Your task to perform on an android device: Check the weather Image 0: 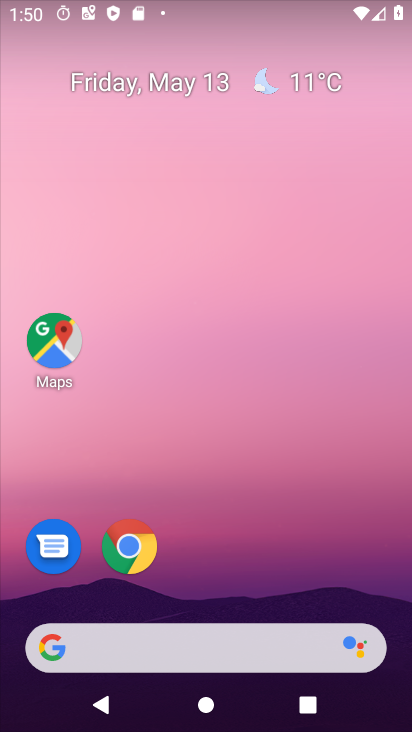
Step 0: drag from (233, 618) to (280, 330)
Your task to perform on an android device: Check the weather Image 1: 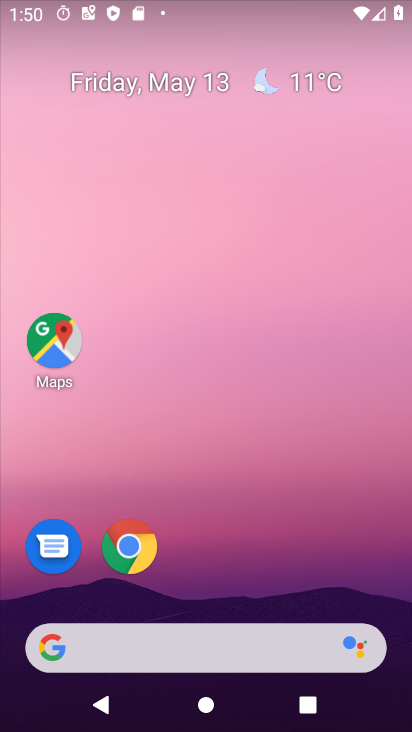
Step 1: drag from (235, 663) to (308, 172)
Your task to perform on an android device: Check the weather Image 2: 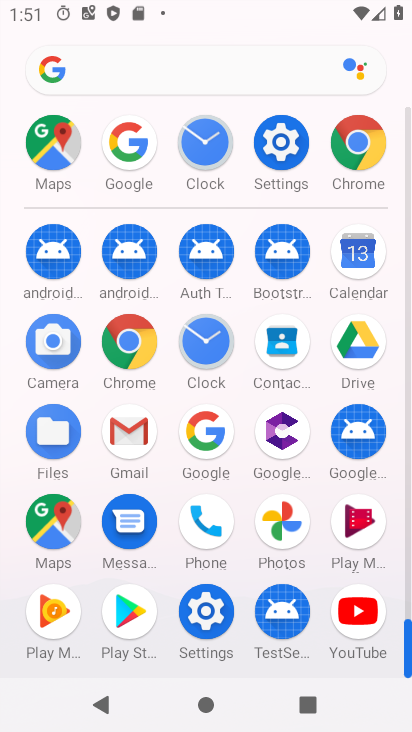
Step 2: click (212, 459)
Your task to perform on an android device: Check the weather Image 3: 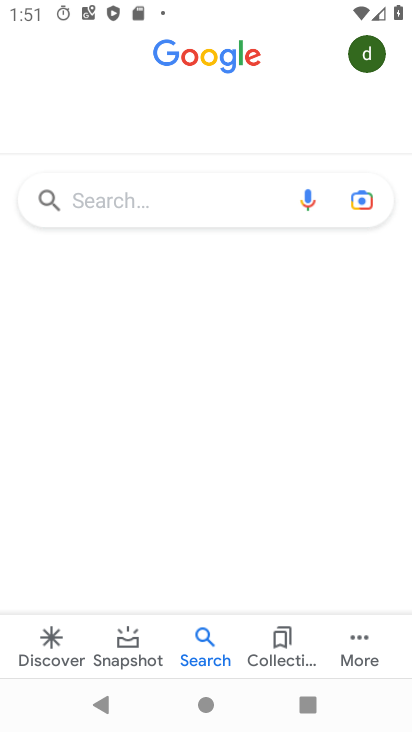
Step 3: click (231, 208)
Your task to perform on an android device: Check the weather Image 4: 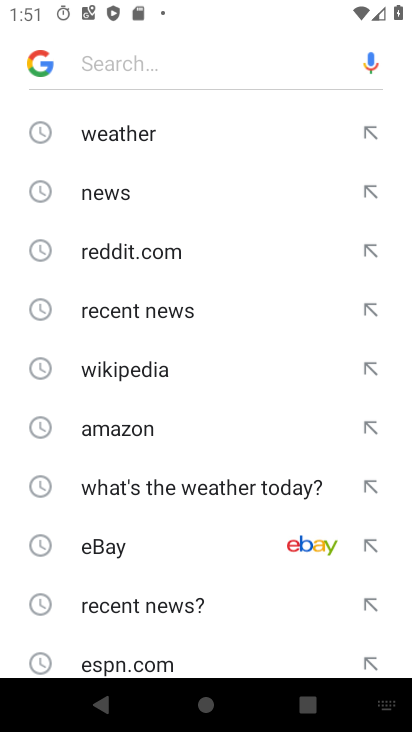
Step 4: click (194, 133)
Your task to perform on an android device: Check the weather Image 5: 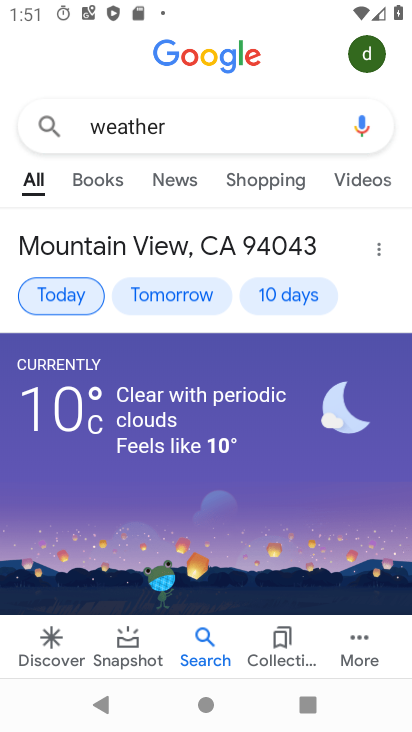
Step 5: task complete